Your task to perform on an android device: Play the last video I watched on Youtube Image 0: 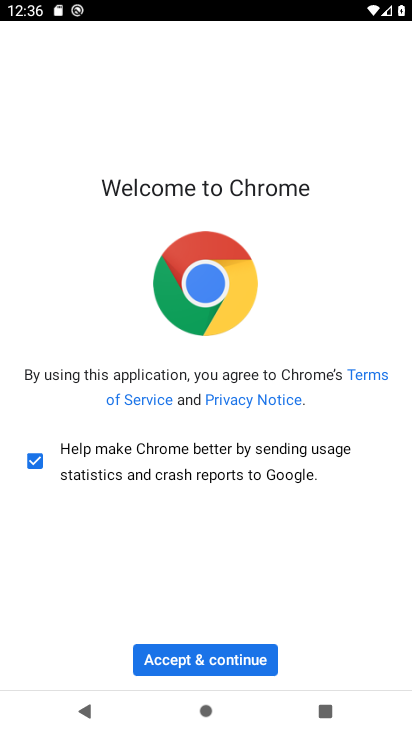
Step 0: press home button
Your task to perform on an android device: Play the last video I watched on Youtube Image 1: 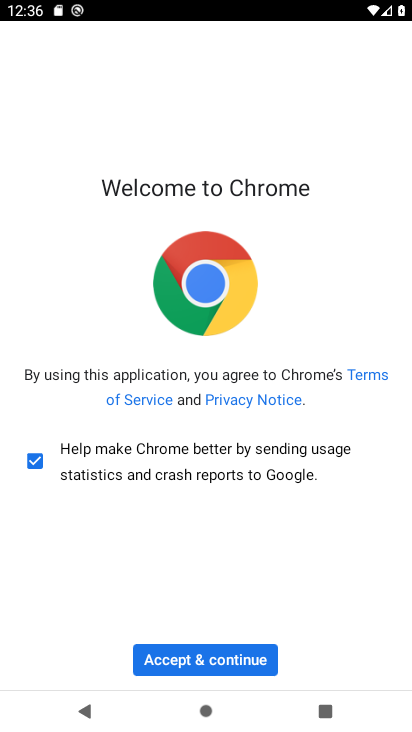
Step 1: drag from (230, 306) to (256, 128)
Your task to perform on an android device: Play the last video I watched on Youtube Image 2: 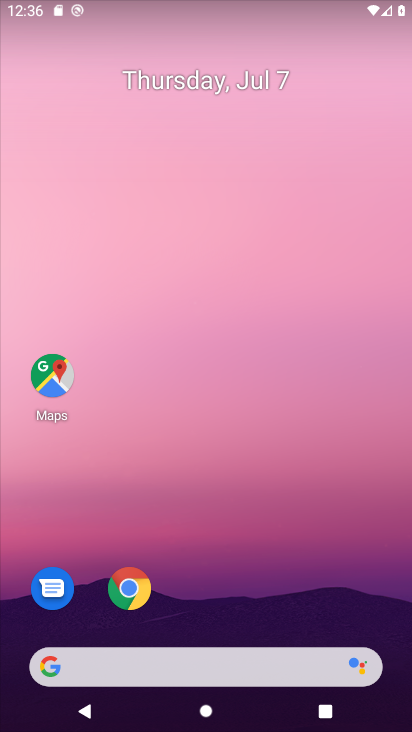
Step 2: drag from (189, 606) to (325, 88)
Your task to perform on an android device: Play the last video I watched on Youtube Image 3: 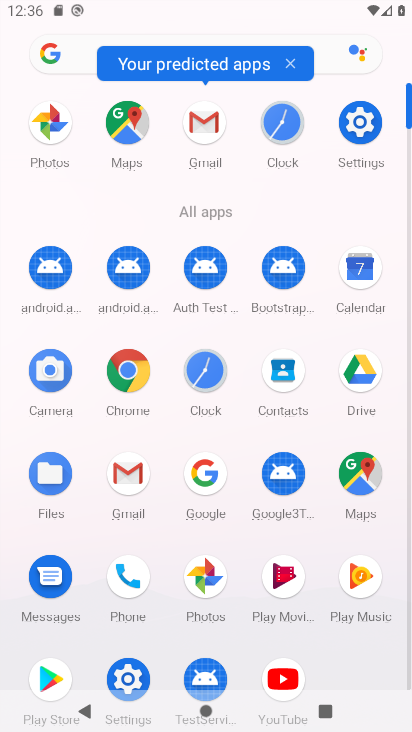
Step 3: click (290, 677)
Your task to perform on an android device: Play the last video I watched on Youtube Image 4: 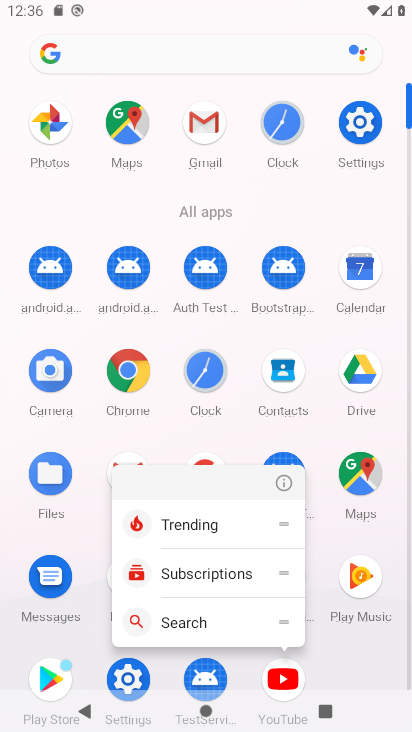
Step 4: click (290, 483)
Your task to perform on an android device: Play the last video I watched on Youtube Image 5: 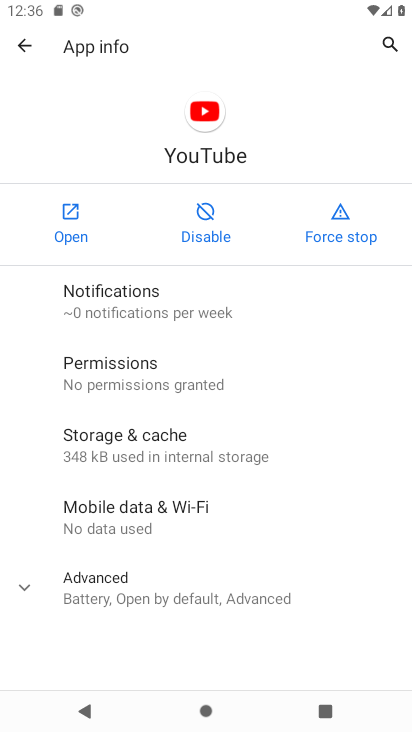
Step 5: click (63, 211)
Your task to perform on an android device: Play the last video I watched on Youtube Image 6: 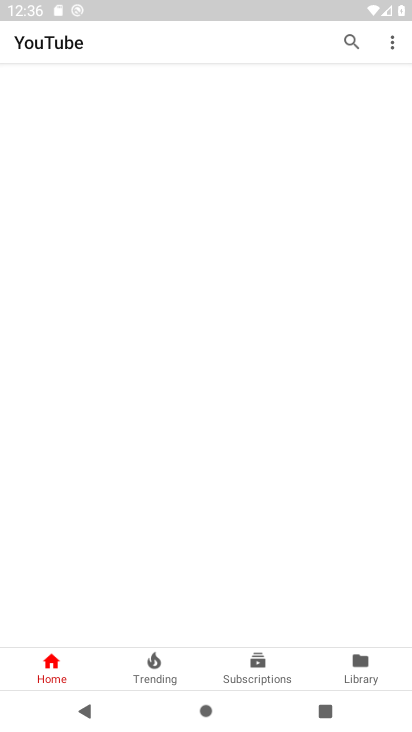
Step 6: drag from (174, 580) to (147, 163)
Your task to perform on an android device: Play the last video I watched on Youtube Image 7: 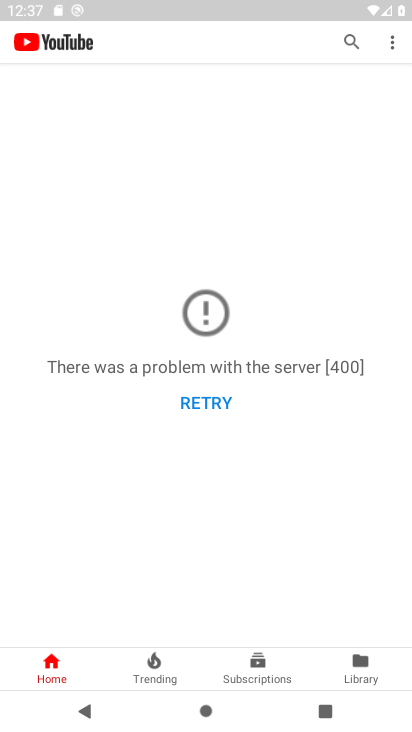
Step 7: click (206, 397)
Your task to perform on an android device: Play the last video I watched on Youtube Image 8: 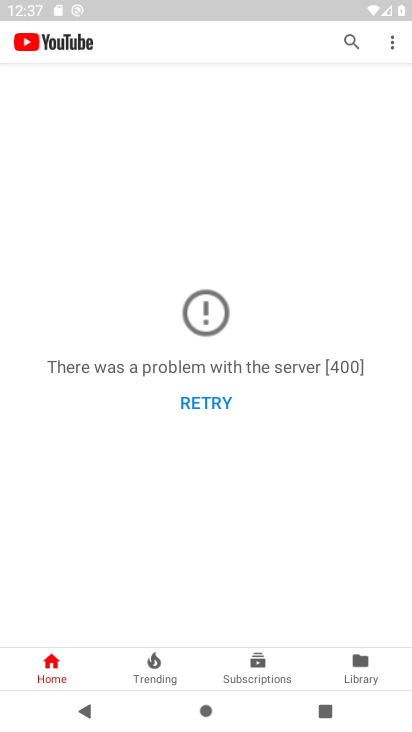
Step 8: drag from (200, 484) to (231, 256)
Your task to perform on an android device: Play the last video I watched on Youtube Image 9: 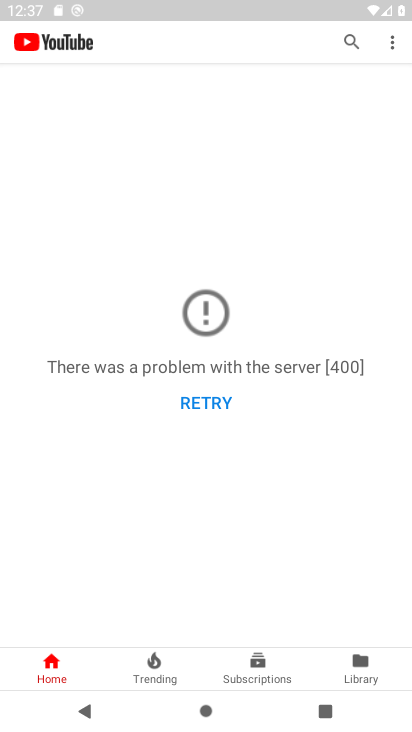
Step 9: click (191, 382)
Your task to perform on an android device: Play the last video I watched on Youtube Image 10: 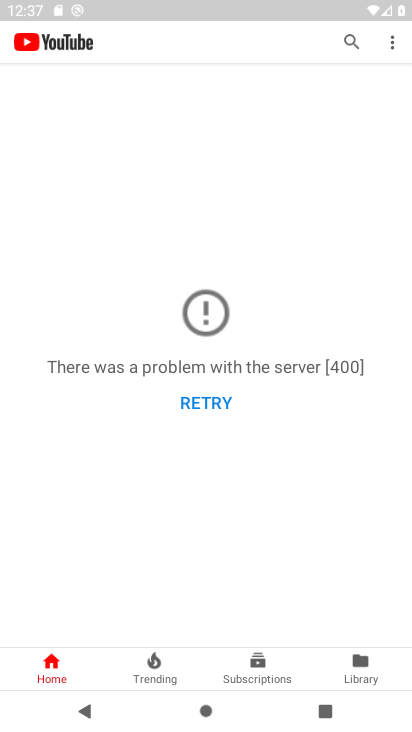
Step 10: click (223, 400)
Your task to perform on an android device: Play the last video I watched on Youtube Image 11: 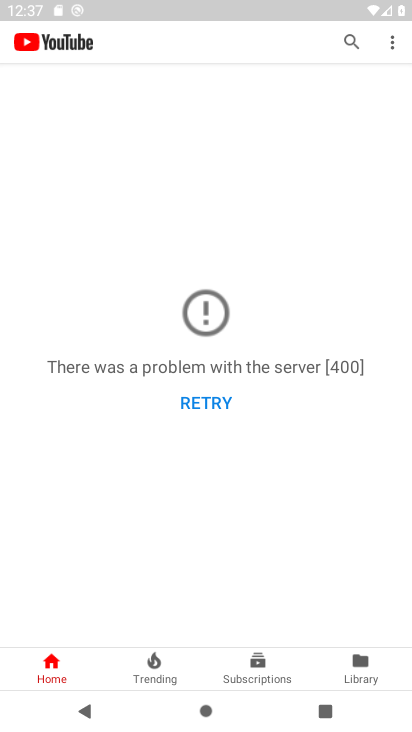
Step 11: click (223, 400)
Your task to perform on an android device: Play the last video I watched on Youtube Image 12: 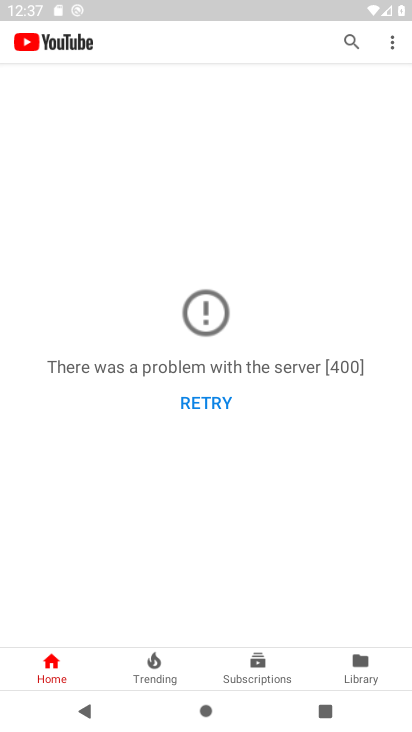
Step 12: drag from (270, 572) to (349, 353)
Your task to perform on an android device: Play the last video I watched on Youtube Image 13: 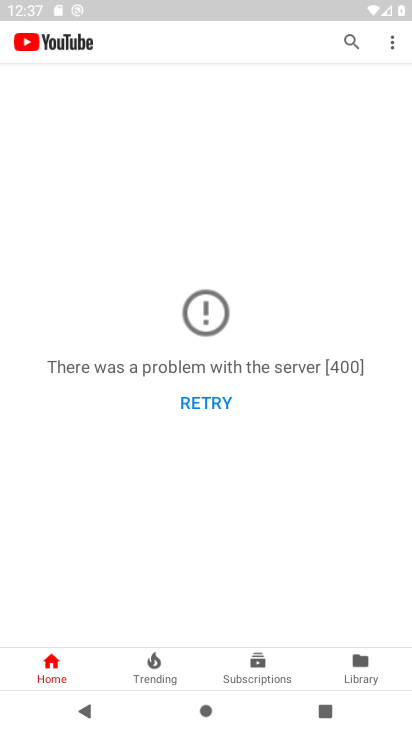
Step 13: click (346, 661)
Your task to perform on an android device: Play the last video I watched on Youtube Image 14: 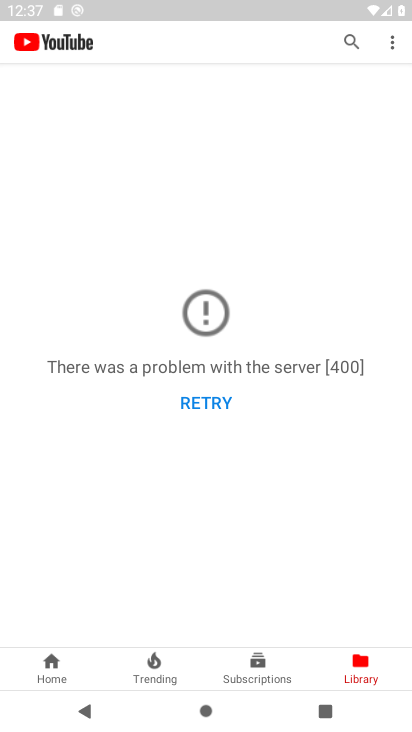
Step 14: click (189, 412)
Your task to perform on an android device: Play the last video I watched on Youtube Image 15: 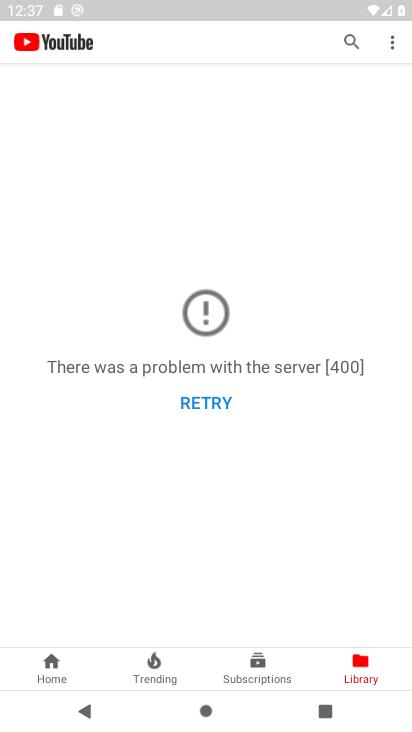
Step 15: drag from (245, 549) to (264, 244)
Your task to perform on an android device: Play the last video I watched on Youtube Image 16: 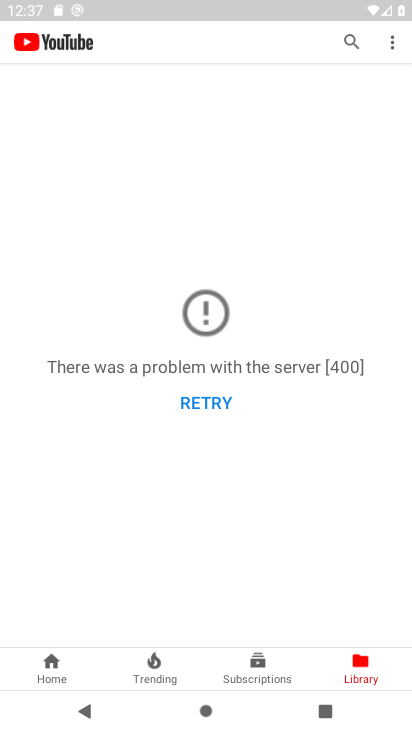
Step 16: click (202, 403)
Your task to perform on an android device: Play the last video I watched on Youtube Image 17: 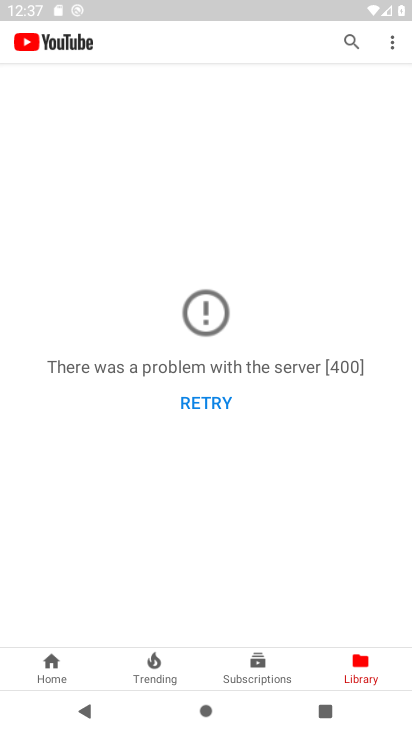
Step 17: drag from (284, 477) to (306, 338)
Your task to perform on an android device: Play the last video I watched on Youtube Image 18: 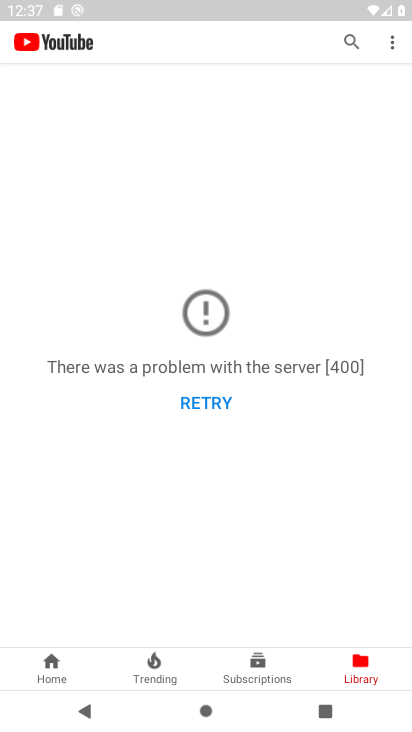
Step 18: click (195, 410)
Your task to perform on an android device: Play the last video I watched on Youtube Image 19: 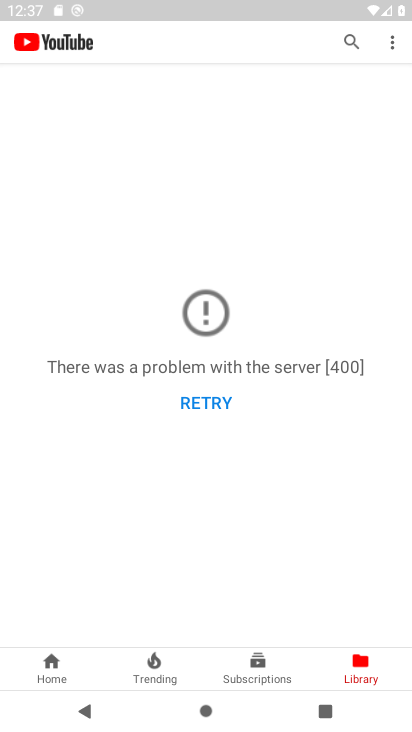
Step 19: click (195, 410)
Your task to perform on an android device: Play the last video I watched on Youtube Image 20: 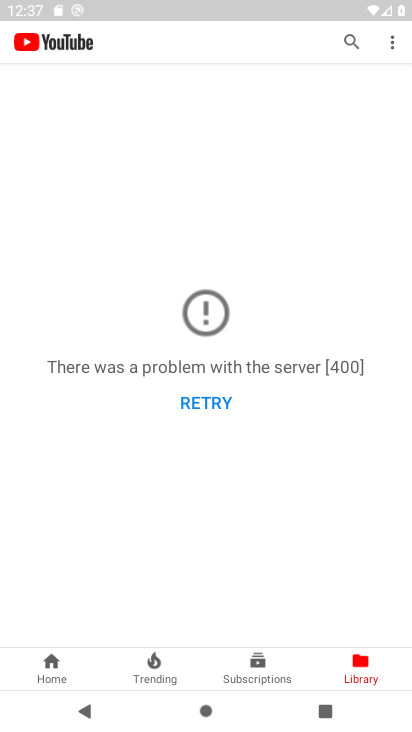
Step 20: drag from (202, 560) to (278, 248)
Your task to perform on an android device: Play the last video I watched on Youtube Image 21: 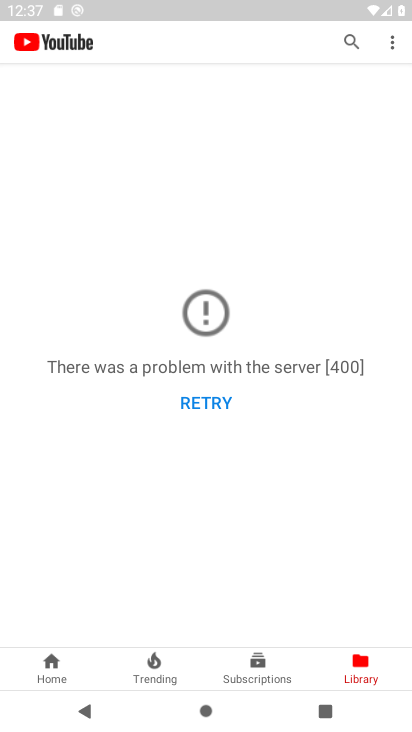
Step 21: click (184, 393)
Your task to perform on an android device: Play the last video I watched on Youtube Image 22: 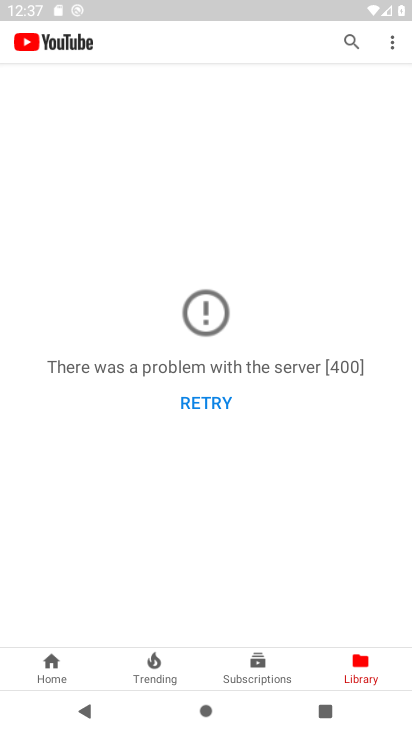
Step 22: click (188, 393)
Your task to perform on an android device: Play the last video I watched on Youtube Image 23: 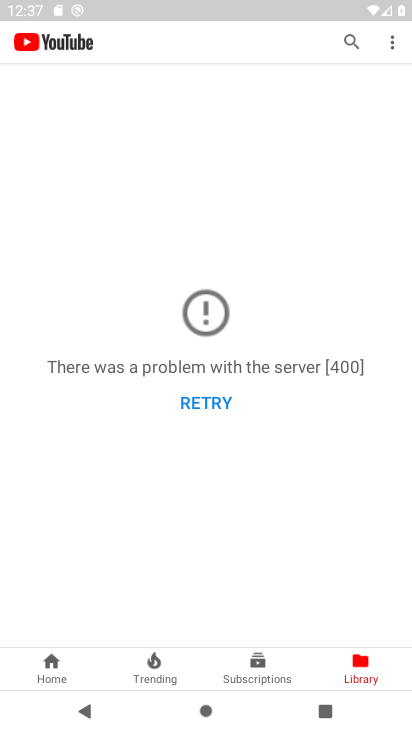
Step 23: task complete